Your task to perform on an android device: open a new tab in the chrome app Image 0: 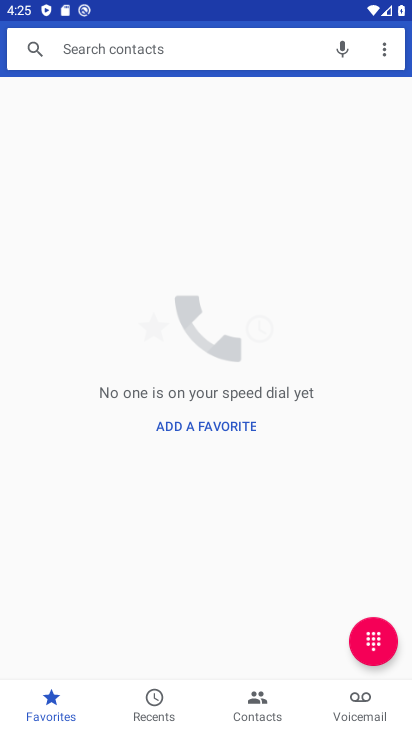
Step 0: press home button
Your task to perform on an android device: open a new tab in the chrome app Image 1: 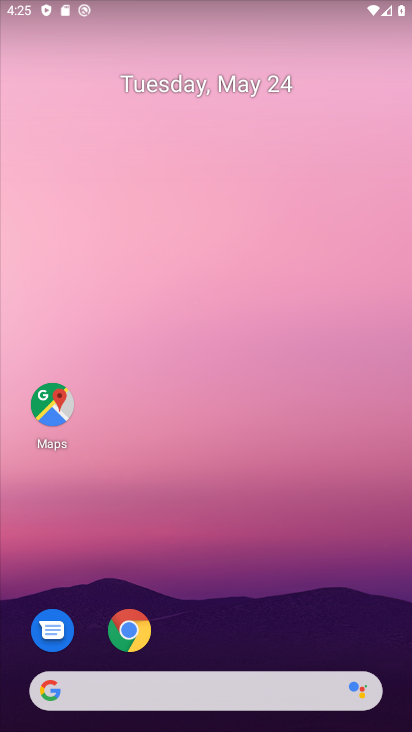
Step 1: click (133, 626)
Your task to perform on an android device: open a new tab in the chrome app Image 2: 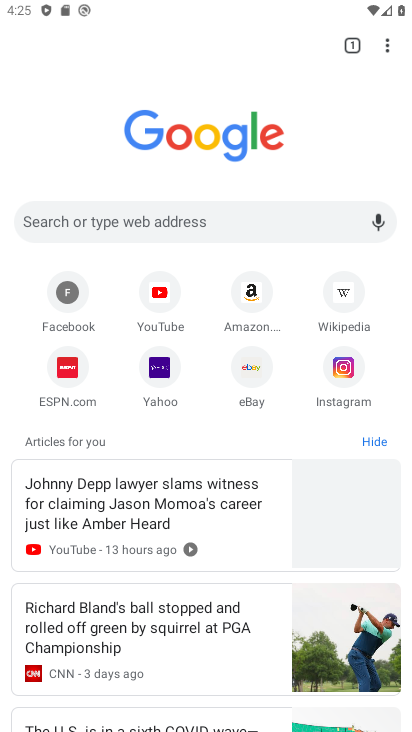
Step 2: click (362, 47)
Your task to perform on an android device: open a new tab in the chrome app Image 3: 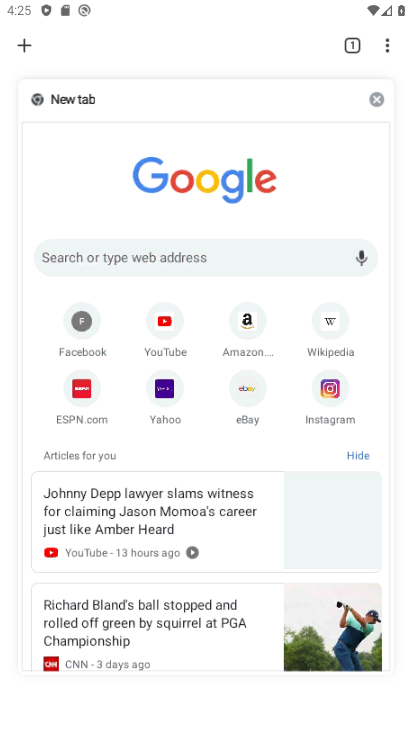
Step 3: click (28, 33)
Your task to perform on an android device: open a new tab in the chrome app Image 4: 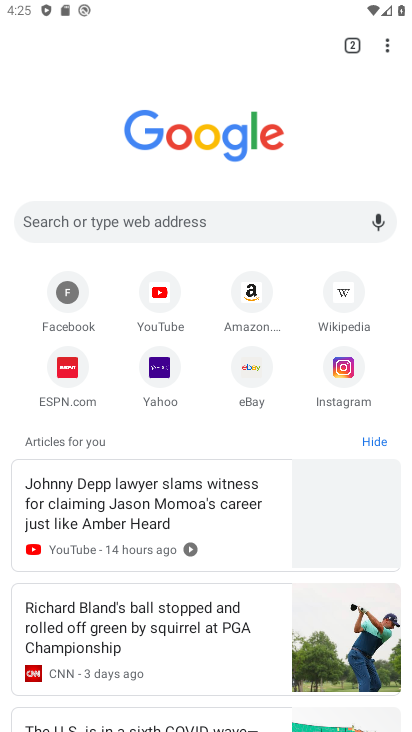
Step 4: task complete